Your task to perform on an android device: check android version Image 0: 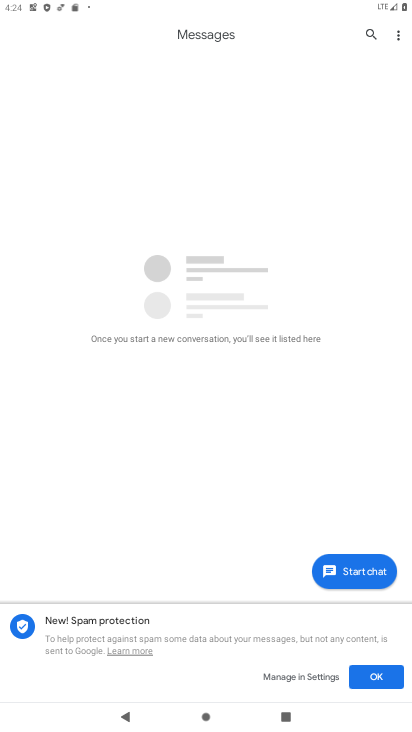
Step 0: press home button
Your task to perform on an android device: check android version Image 1: 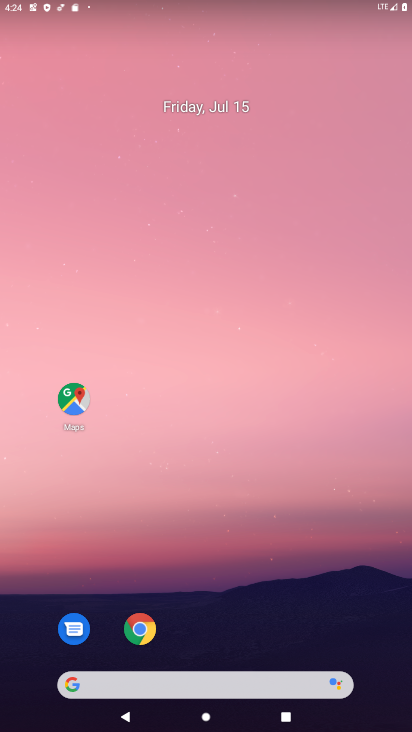
Step 1: drag from (193, 226) to (271, 10)
Your task to perform on an android device: check android version Image 2: 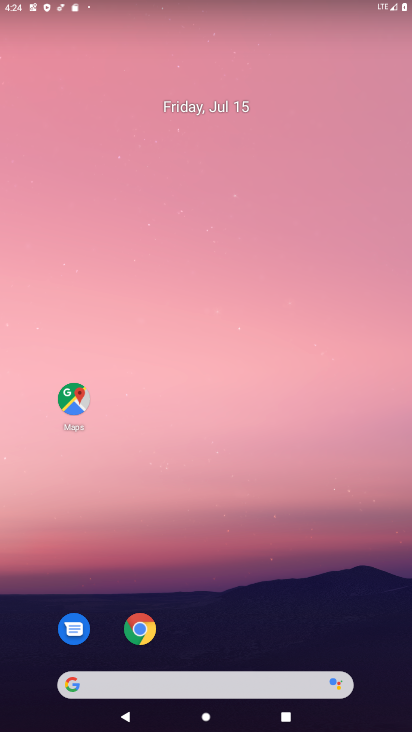
Step 2: drag from (177, 431) to (161, 88)
Your task to perform on an android device: check android version Image 3: 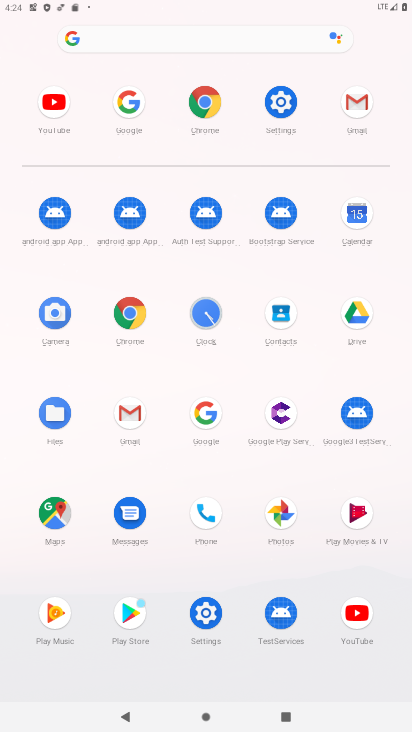
Step 3: click (277, 100)
Your task to perform on an android device: check android version Image 4: 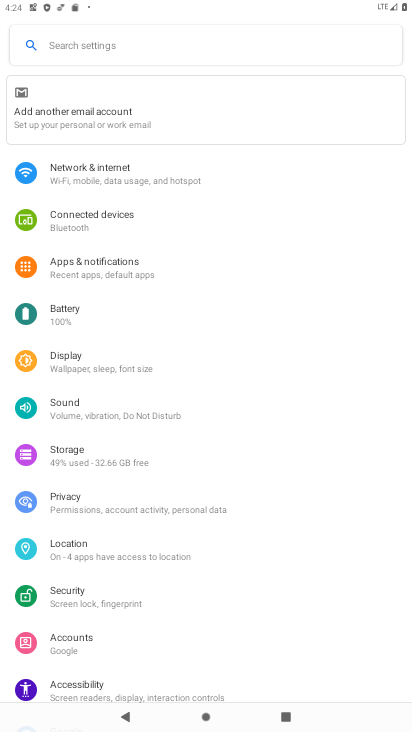
Step 4: drag from (146, 568) to (151, 224)
Your task to perform on an android device: check android version Image 5: 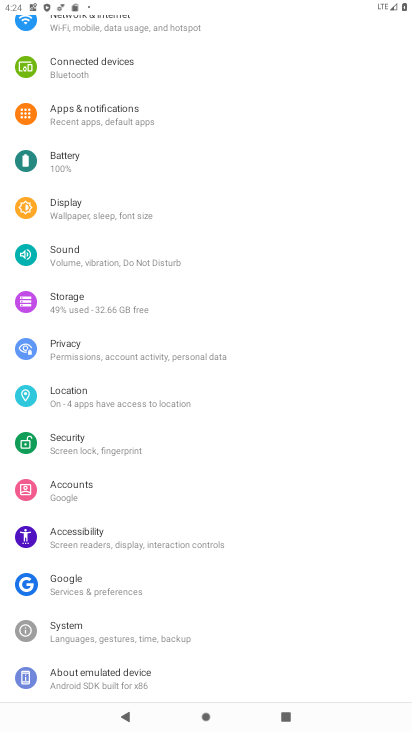
Step 5: click (92, 680)
Your task to perform on an android device: check android version Image 6: 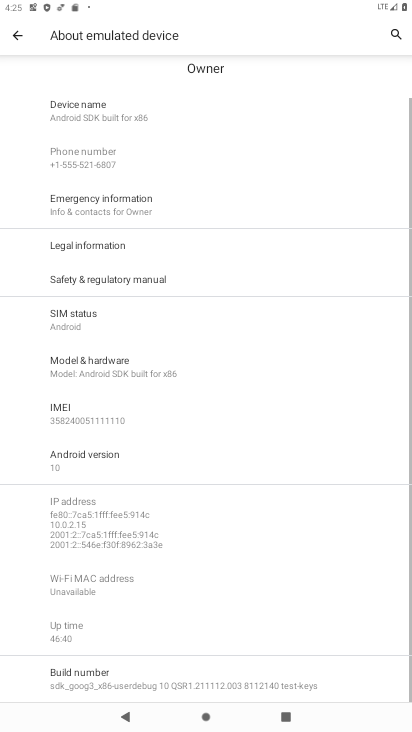
Step 6: click (74, 472)
Your task to perform on an android device: check android version Image 7: 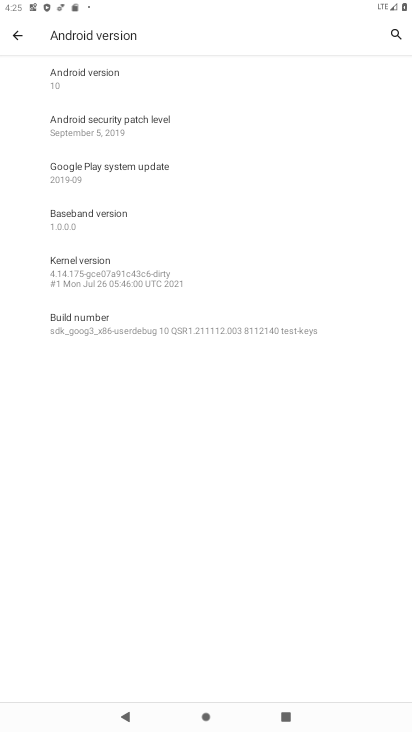
Step 7: task complete